Your task to perform on an android device: Clear all items from cart on costco.com. Search for "usb-c" on costco.com, select the first entry, add it to the cart, then select checkout. Image 0: 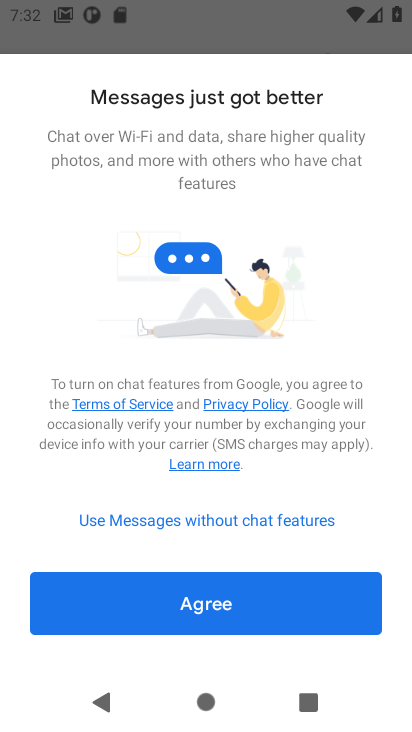
Step 0: task complete